Your task to perform on an android device: turn off priority inbox in the gmail app Image 0: 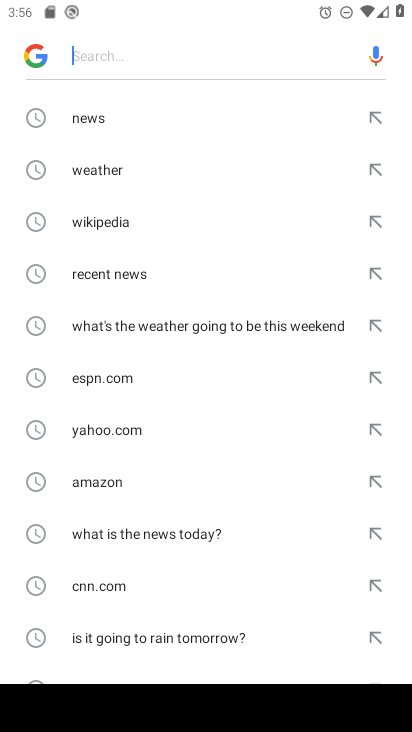
Step 0: press home button
Your task to perform on an android device: turn off priority inbox in the gmail app Image 1: 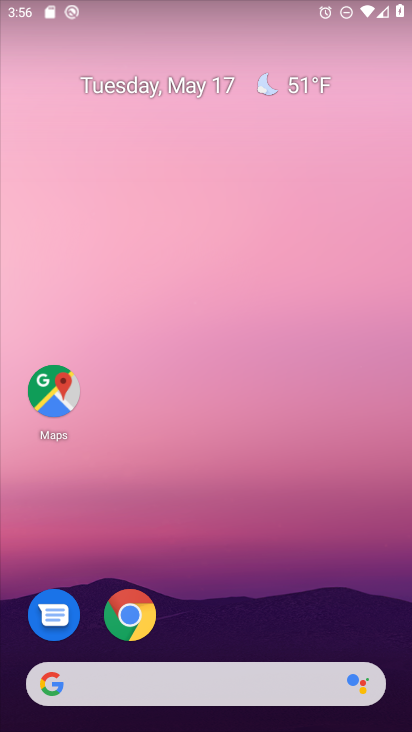
Step 1: drag from (200, 639) to (205, 59)
Your task to perform on an android device: turn off priority inbox in the gmail app Image 2: 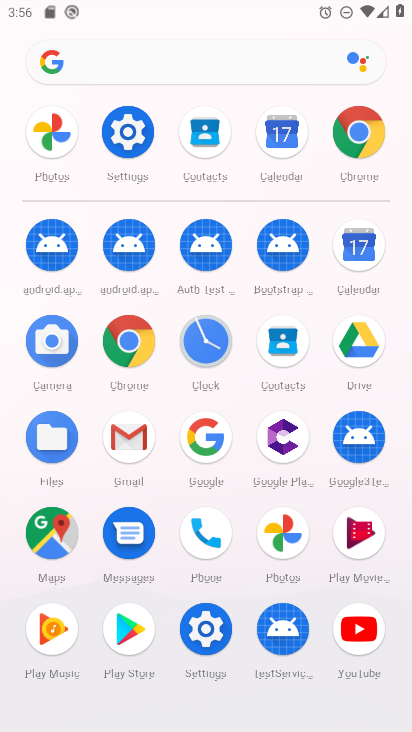
Step 2: click (125, 430)
Your task to perform on an android device: turn off priority inbox in the gmail app Image 3: 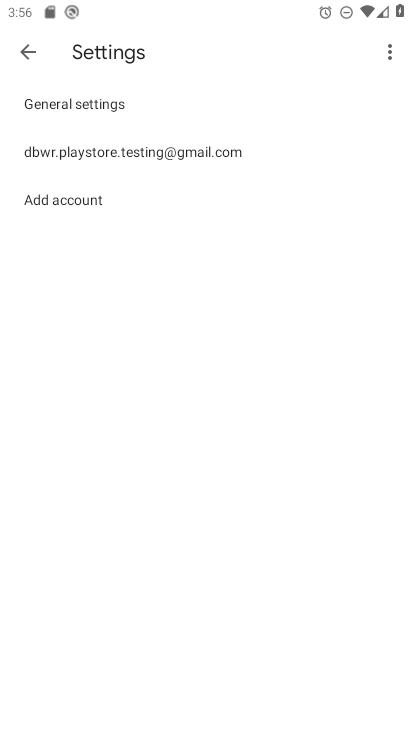
Step 3: click (139, 148)
Your task to perform on an android device: turn off priority inbox in the gmail app Image 4: 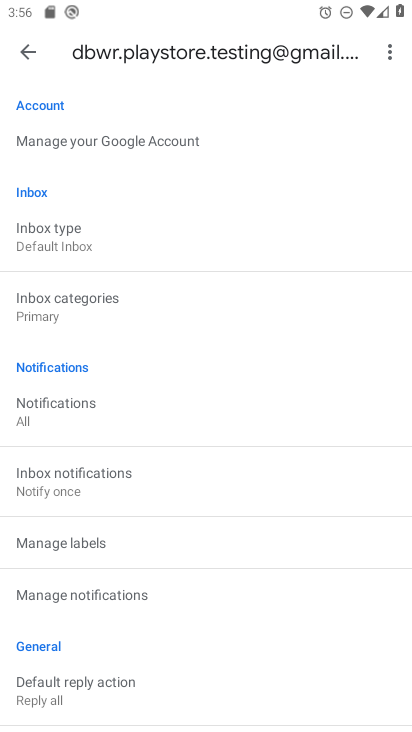
Step 4: click (121, 249)
Your task to perform on an android device: turn off priority inbox in the gmail app Image 5: 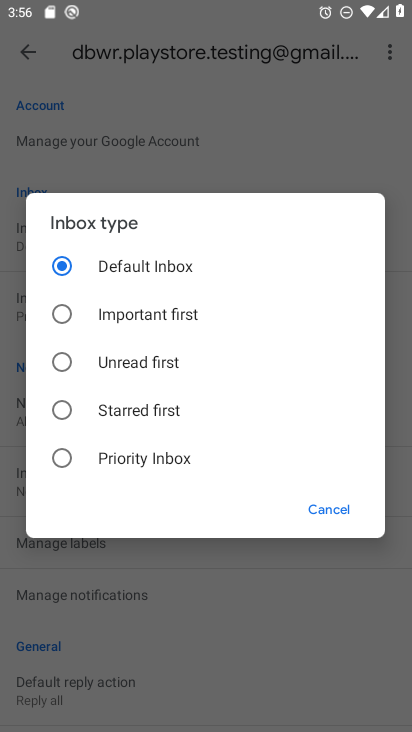
Step 5: click (55, 408)
Your task to perform on an android device: turn off priority inbox in the gmail app Image 6: 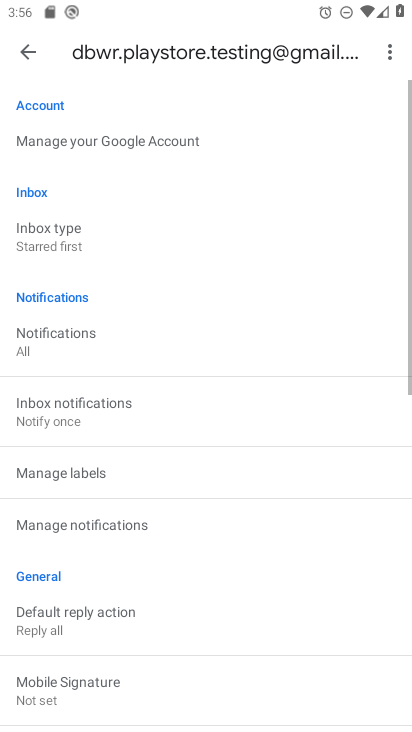
Step 6: task complete